Your task to perform on an android device: Turn off the flashlight Image 0: 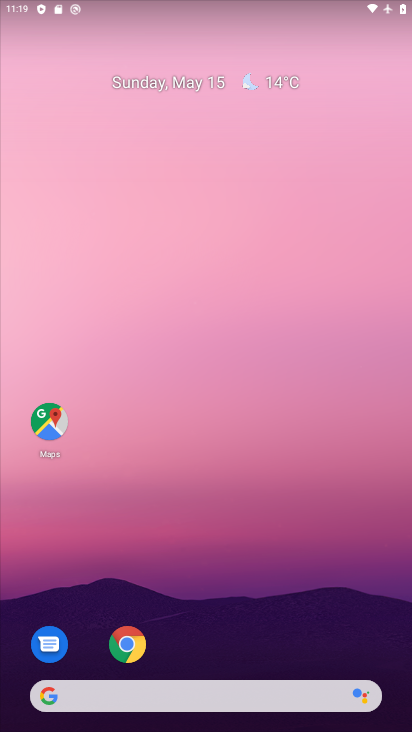
Step 0: drag from (191, 562) to (132, 91)
Your task to perform on an android device: Turn off the flashlight Image 1: 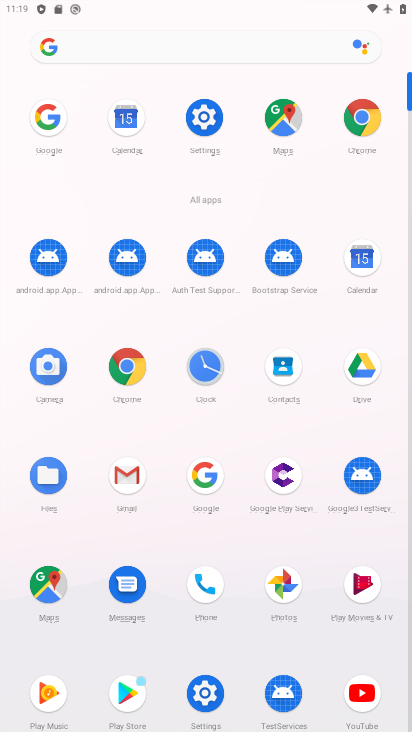
Step 1: click (202, 115)
Your task to perform on an android device: Turn off the flashlight Image 2: 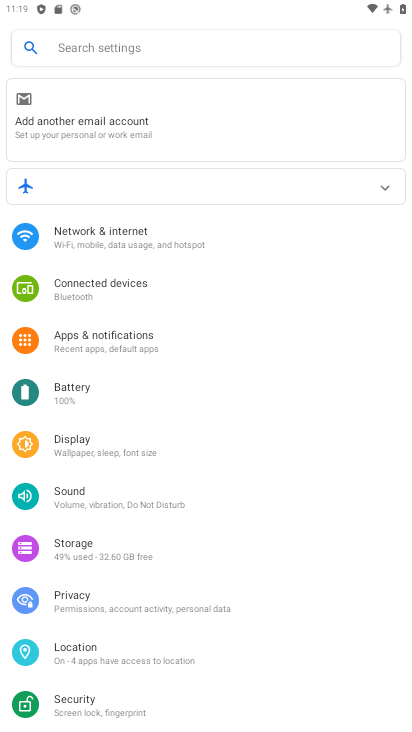
Step 2: click (127, 52)
Your task to perform on an android device: Turn off the flashlight Image 3: 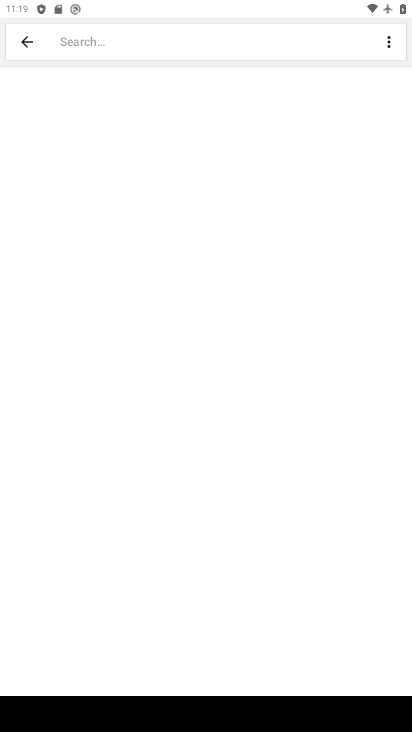
Step 3: type "flashlight"
Your task to perform on an android device: Turn off the flashlight Image 4: 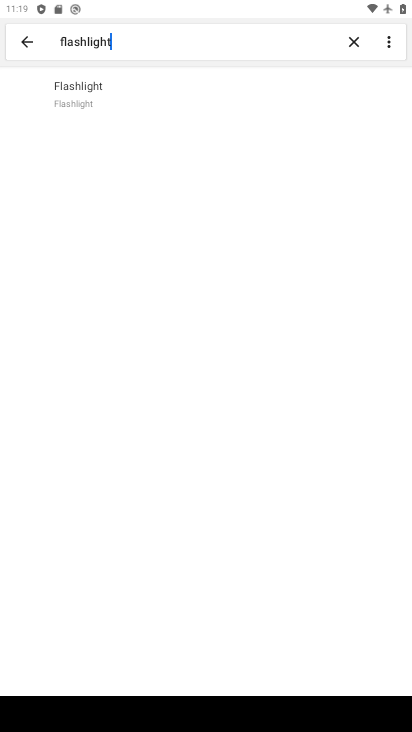
Step 4: click (79, 107)
Your task to perform on an android device: Turn off the flashlight Image 5: 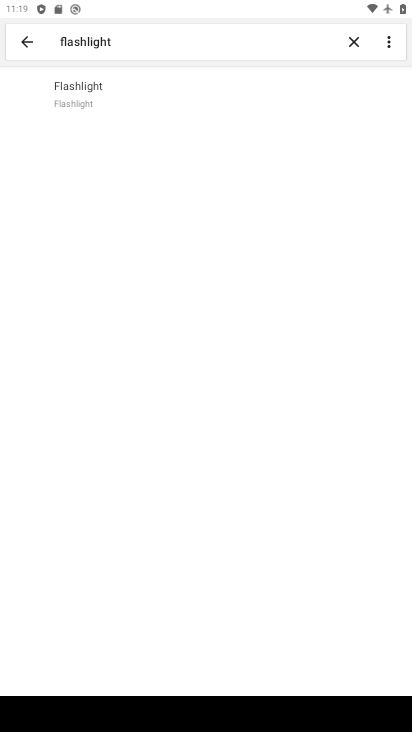
Step 5: click (80, 100)
Your task to perform on an android device: Turn off the flashlight Image 6: 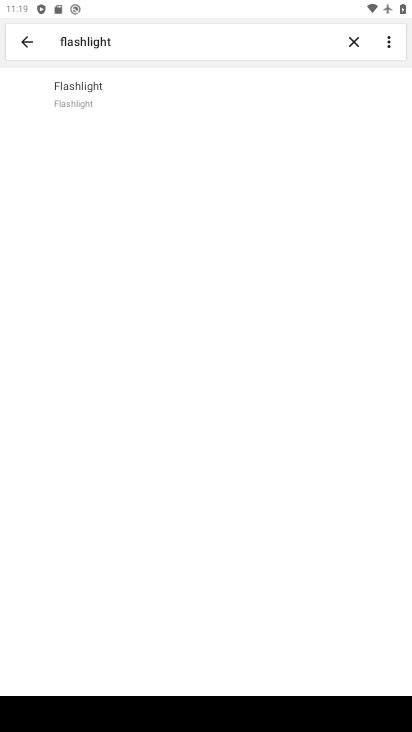
Step 6: click (81, 99)
Your task to perform on an android device: Turn off the flashlight Image 7: 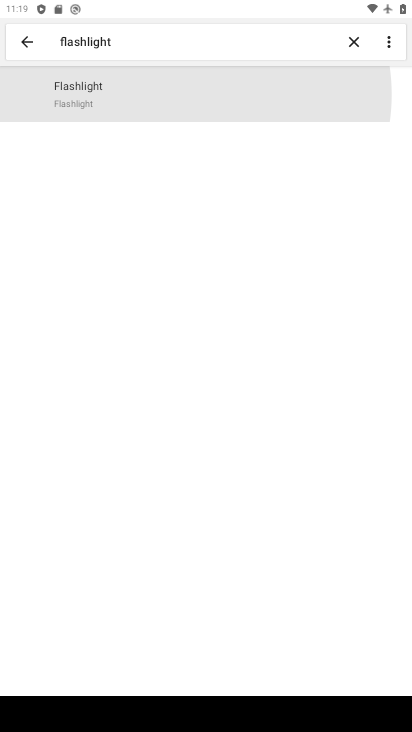
Step 7: click (81, 99)
Your task to perform on an android device: Turn off the flashlight Image 8: 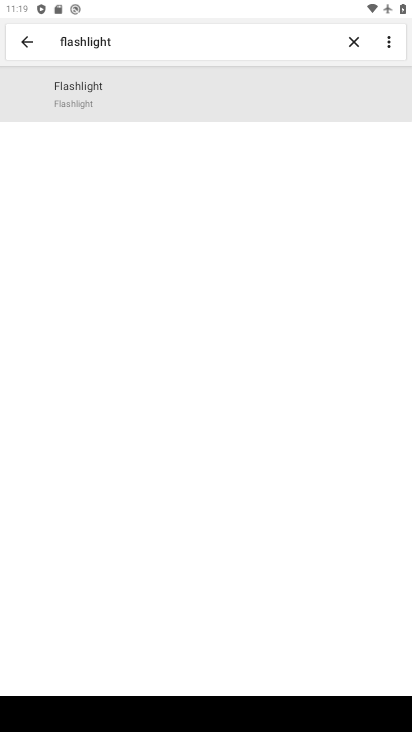
Step 8: click (81, 99)
Your task to perform on an android device: Turn off the flashlight Image 9: 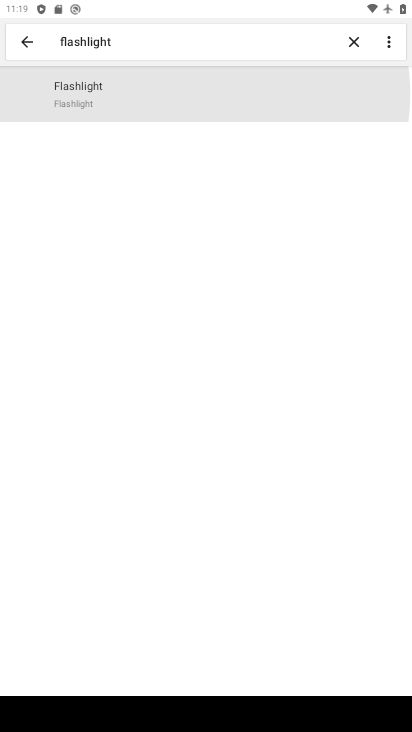
Step 9: click (81, 99)
Your task to perform on an android device: Turn off the flashlight Image 10: 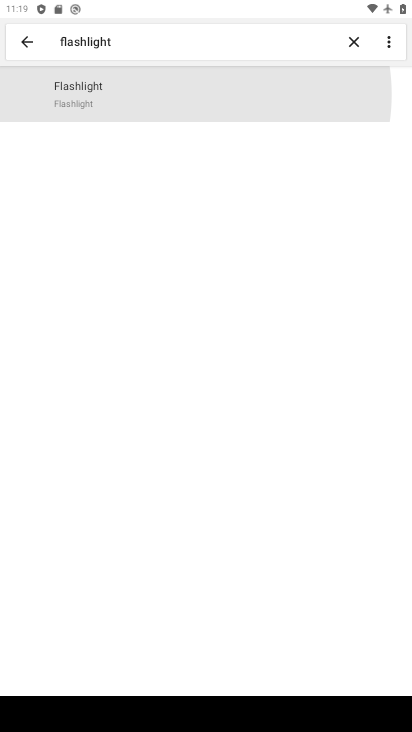
Step 10: click (81, 98)
Your task to perform on an android device: Turn off the flashlight Image 11: 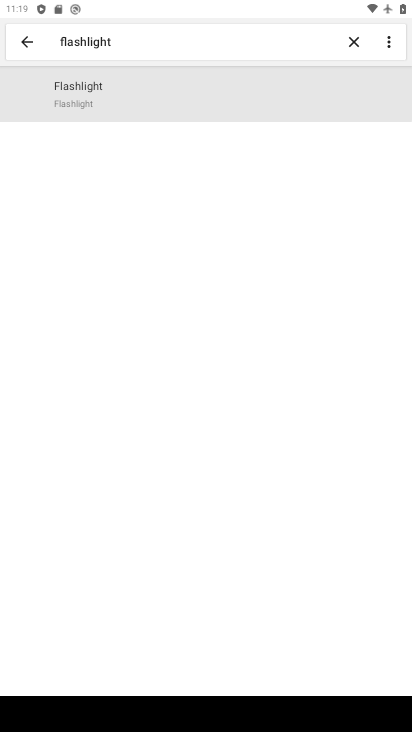
Step 11: click (84, 99)
Your task to perform on an android device: Turn off the flashlight Image 12: 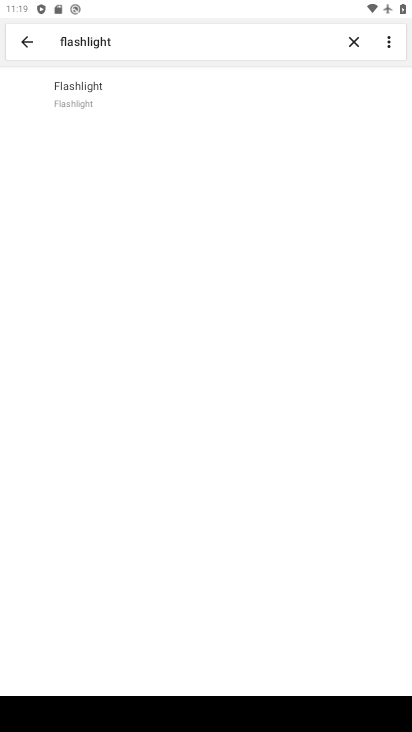
Step 12: click (84, 100)
Your task to perform on an android device: Turn off the flashlight Image 13: 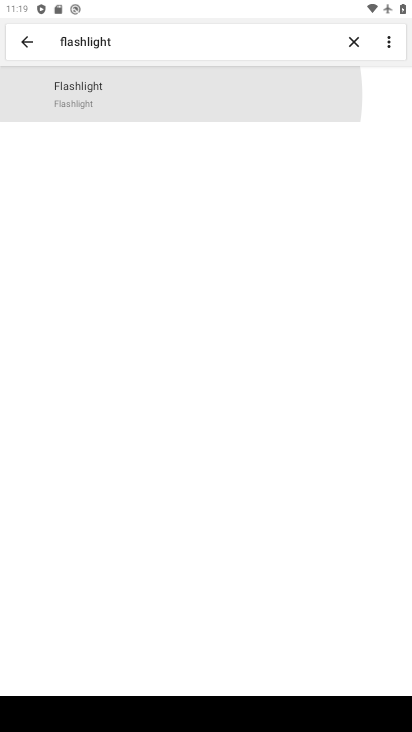
Step 13: click (89, 119)
Your task to perform on an android device: Turn off the flashlight Image 14: 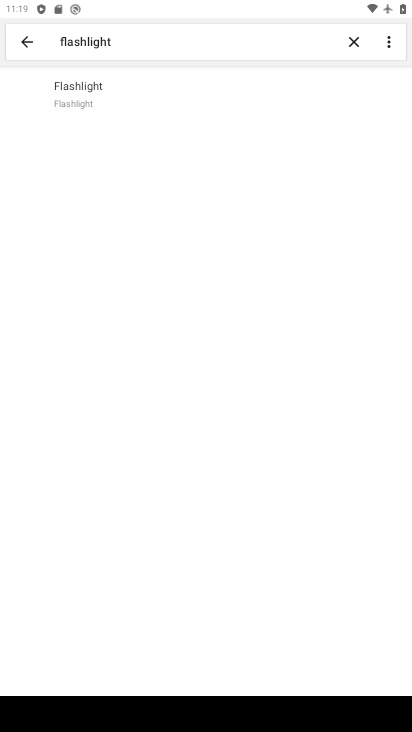
Step 14: click (94, 108)
Your task to perform on an android device: Turn off the flashlight Image 15: 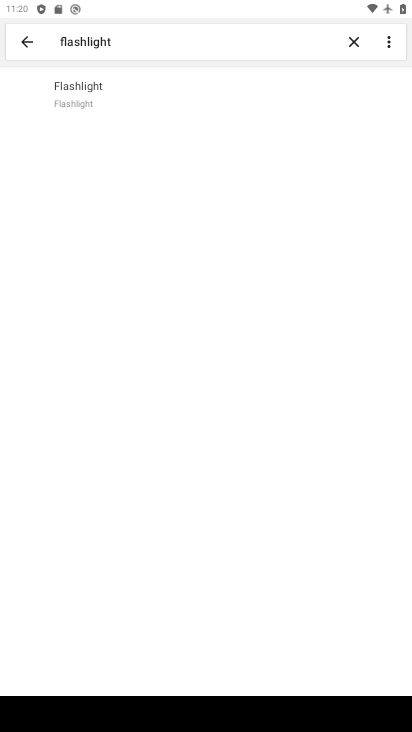
Step 15: task complete